Your task to perform on an android device: toggle data saver in the chrome app Image 0: 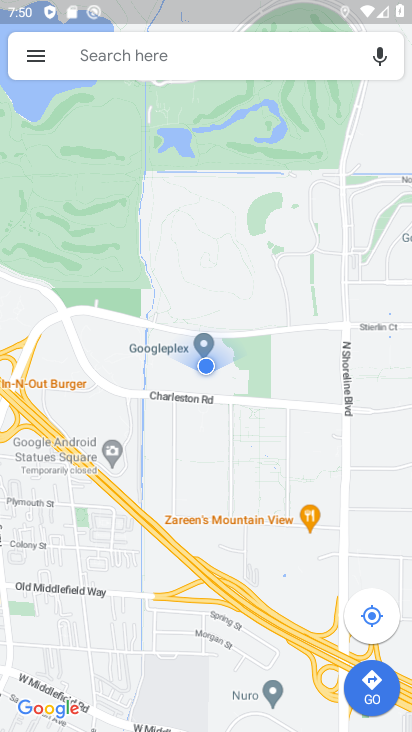
Step 0: press home button
Your task to perform on an android device: toggle data saver in the chrome app Image 1: 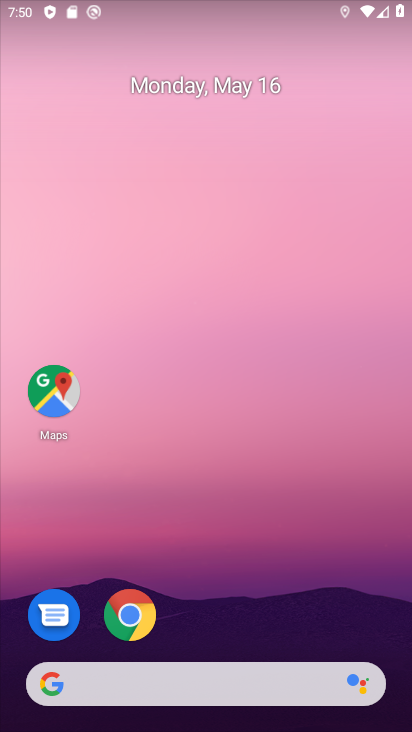
Step 1: click (127, 618)
Your task to perform on an android device: toggle data saver in the chrome app Image 2: 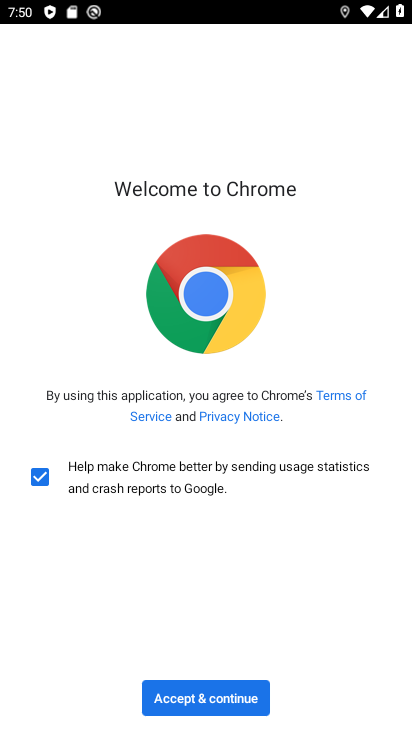
Step 2: click (218, 693)
Your task to perform on an android device: toggle data saver in the chrome app Image 3: 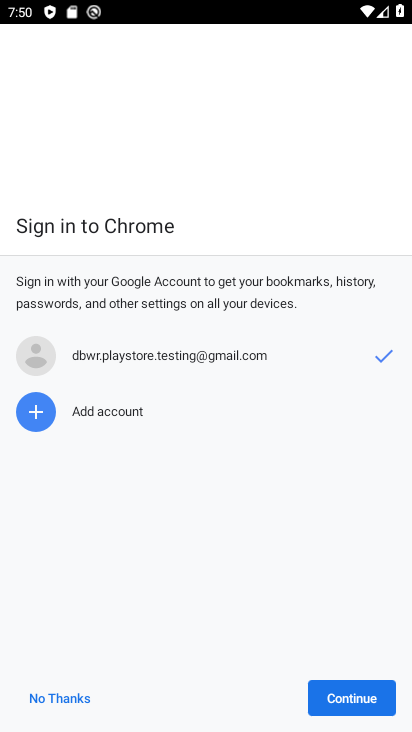
Step 3: click (333, 695)
Your task to perform on an android device: toggle data saver in the chrome app Image 4: 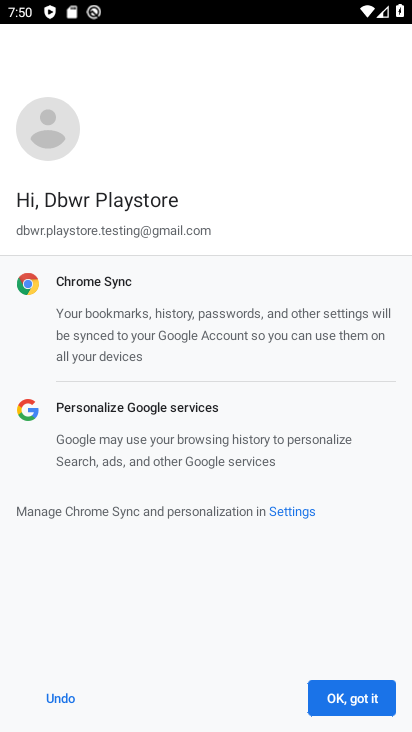
Step 4: click (333, 695)
Your task to perform on an android device: toggle data saver in the chrome app Image 5: 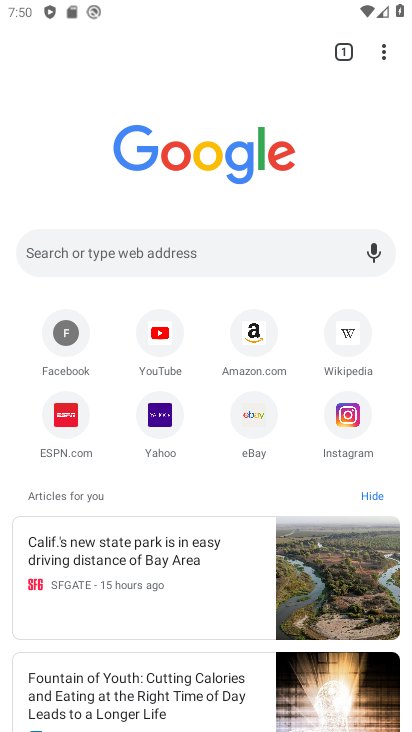
Step 5: click (391, 55)
Your task to perform on an android device: toggle data saver in the chrome app Image 6: 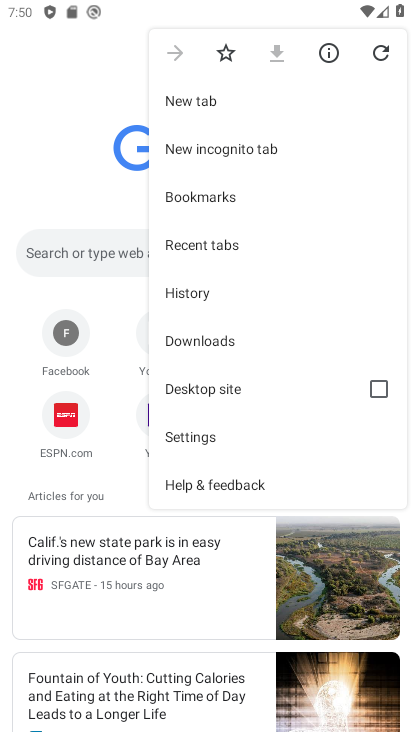
Step 6: click (248, 440)
Your task to perform on an android device: toggle data saver in the chrome app Image 7: 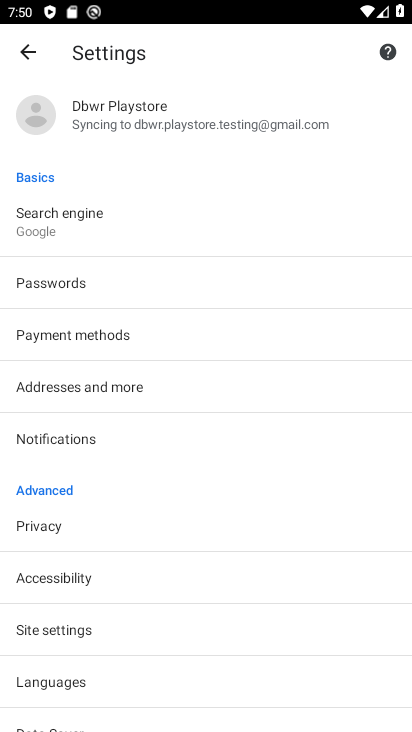
Step 7: click (122, 610)
Your task to perform on an android device: toggle data saver in the chrome app Image 8: 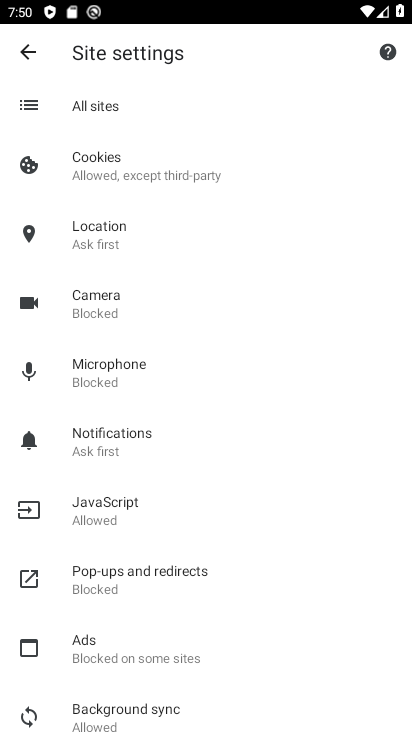
Step 8: click (40, 56)
Your task to perform on an android device: toggle data saver in the chrome app Image 9: 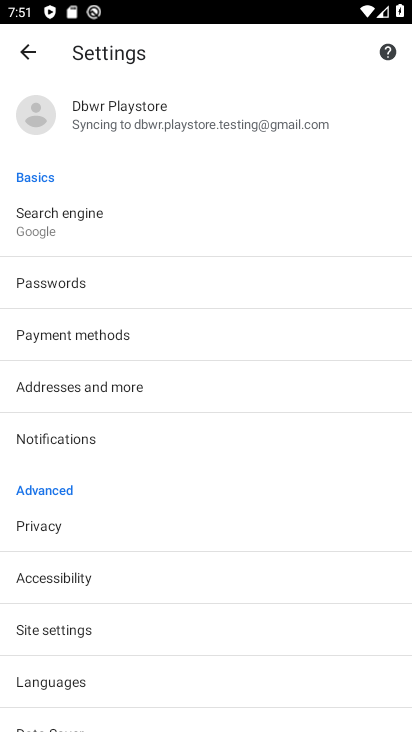
Step 9: drag from (125, 713) to (177, 147)
Your task to perform on an android device: toggle data saver in the chrome app Image 10: 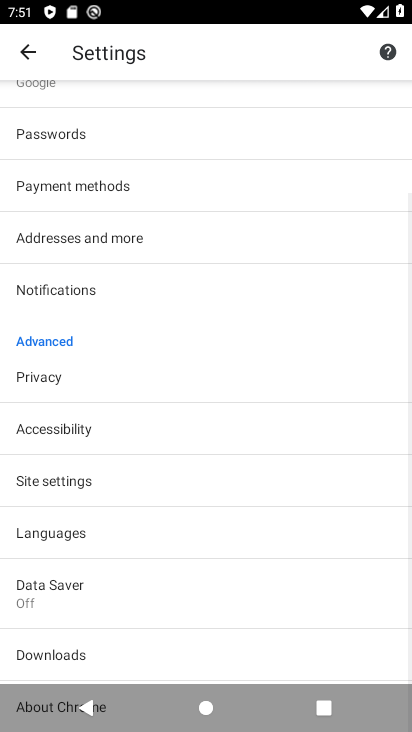
Step 10: click (202, 595)
Your task to perform on an android device: toggle data saver in the chrome app Image 11: 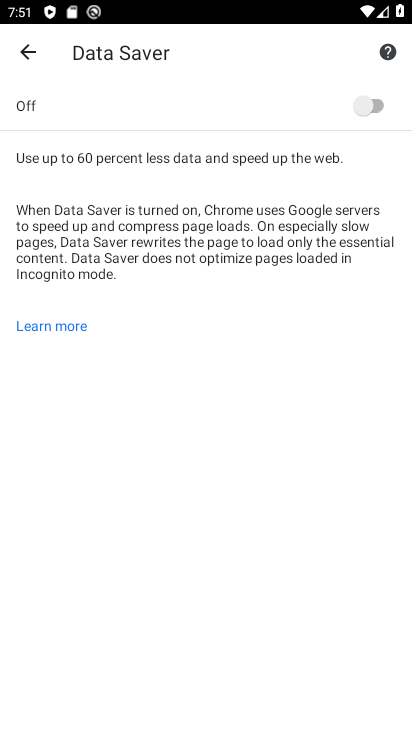
Step 11: click (381, 103)
Your task to perform on an android device: toggle data saver in the chrome app Image 12: 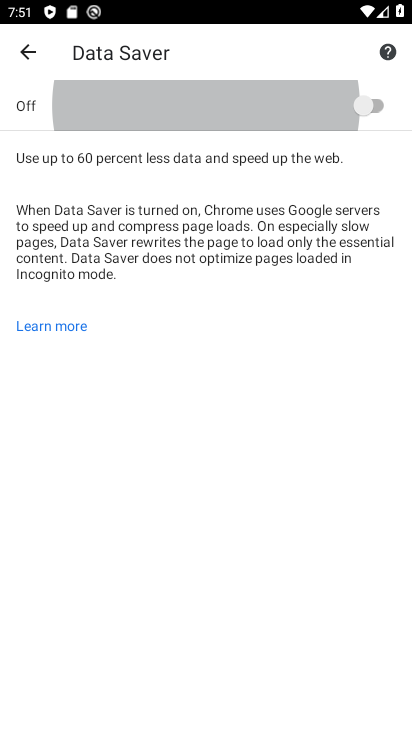
Step 12: click (381, 103)
Your task to perform on an android device: toggle data saver in the chrome app Image 13: 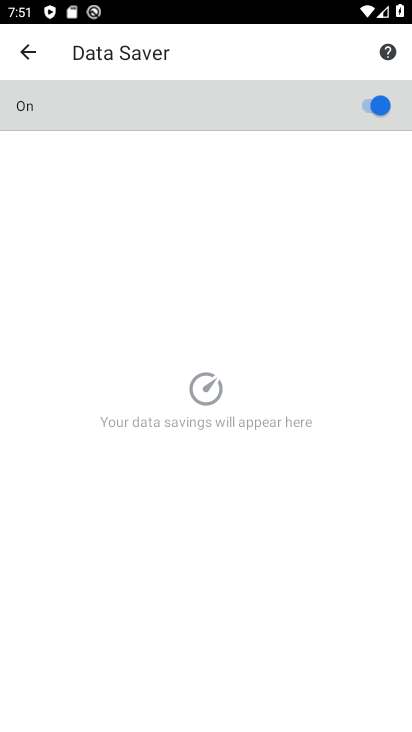
Step 13: click (381, 103)
Your task to perform on an android device: toggle data saver in the chrome app Image 14: 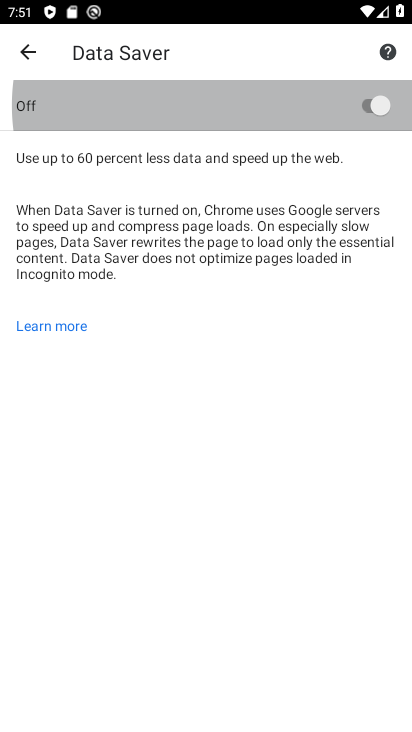
Step 14: click (381, 103)
Your task to perform on an android device: toggle data saver in the chrome app Image 15: 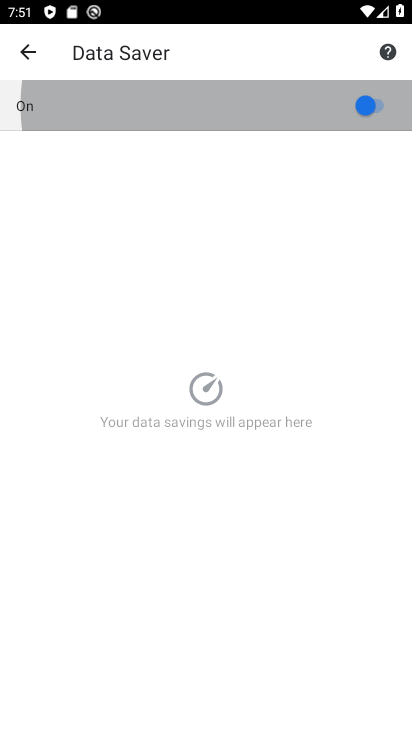
Step 15: click (381, 103)
Your task to perform on an android device: toggle data saver in the chrome app Image 16: 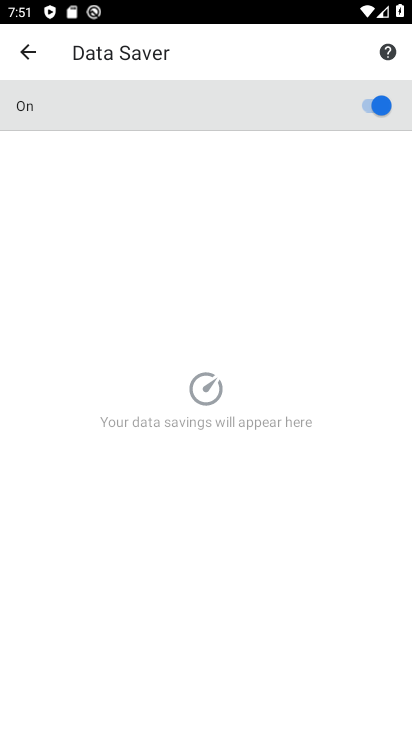
Step 16: click (381, 103)
Your task to perform on an android device: toggle data saver in the chrome app Image 17: 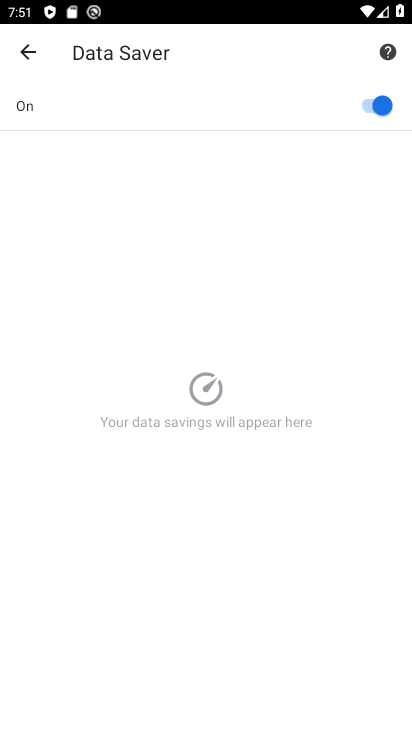
Step 17: task complete